Your task to perform on an android device: Open calendar and show me the third week of next month Image 0: 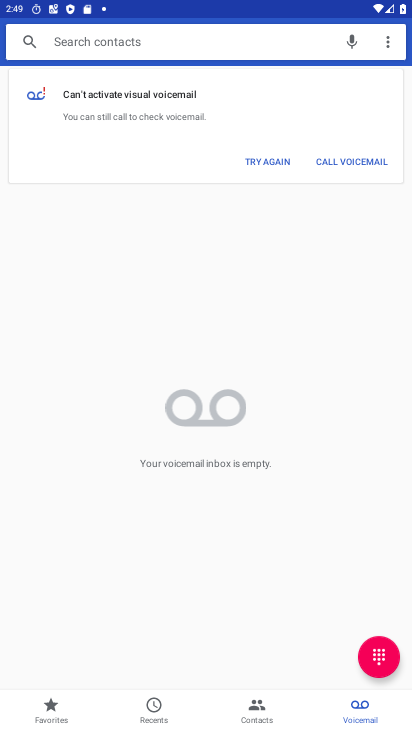
Step 0: press home button
Your task to perform on an android device: Open calendar and show me the third week of next month Image 1: 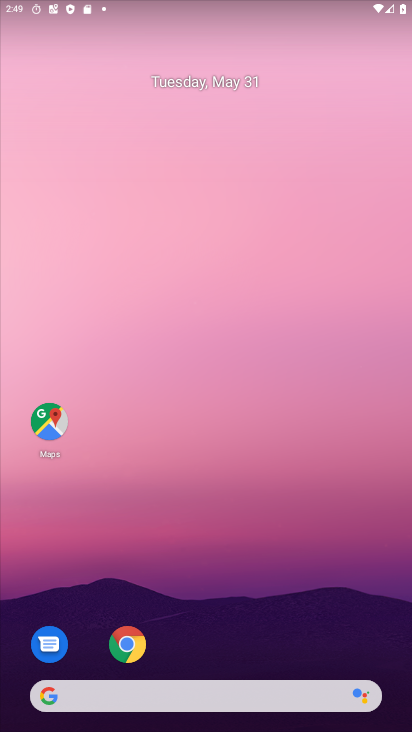
Step 1: drag from (394, 693) to (382, 117)
Your task to perform on an android device: Open calendar and show me the third week of next month Image 2: 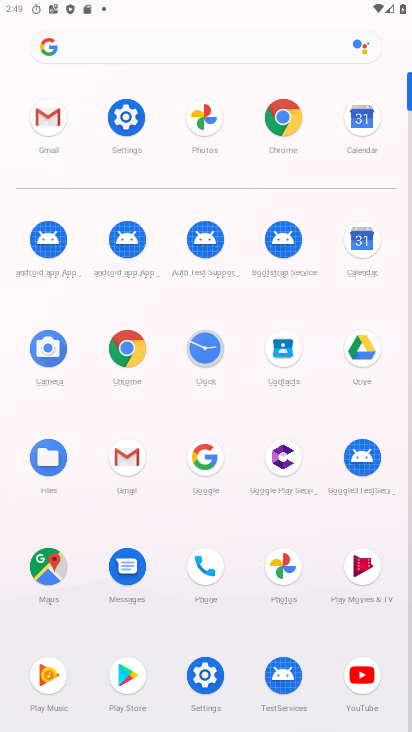
Step 2: click (371, 236)
Your task to perform on an android device: Open calendar and show me the third week of next month Image 3: 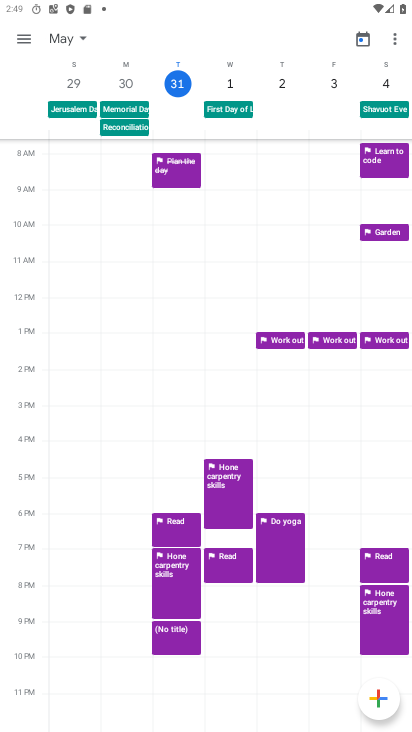
Step 3: click (83, 37)
Your task to perform on an android device: Open calendar and show me the third week of next month Image 4: 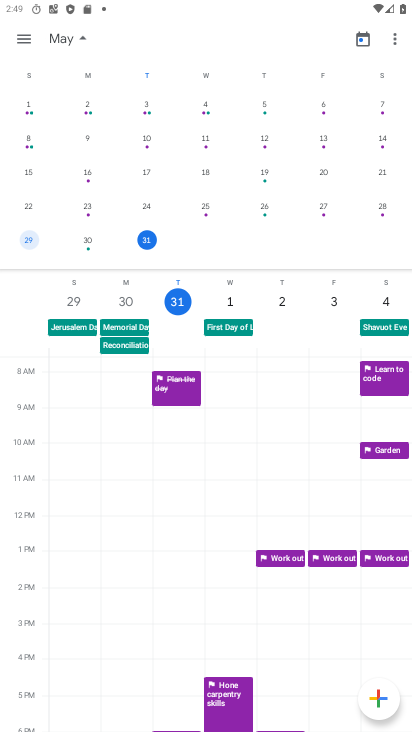
Step 4: drag from (395, 196) to (41, 166)
Your task to perform on an android device: Open calendar and show me the third week of next month Image 5: 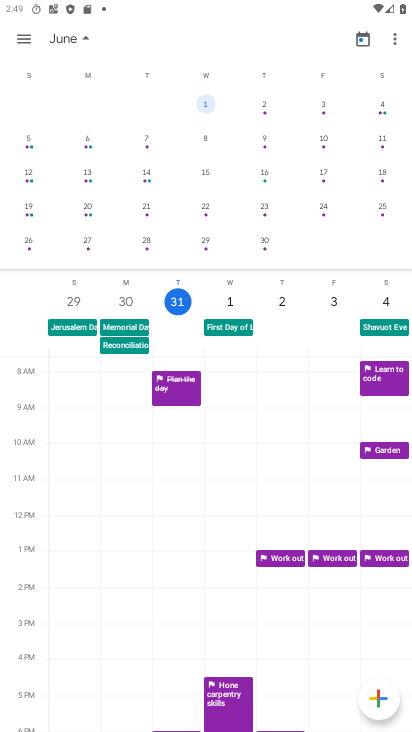
Step 5: click (266, 168)
Your task to perform on an android device: Open calendar and show me the third week of next month Image 6: 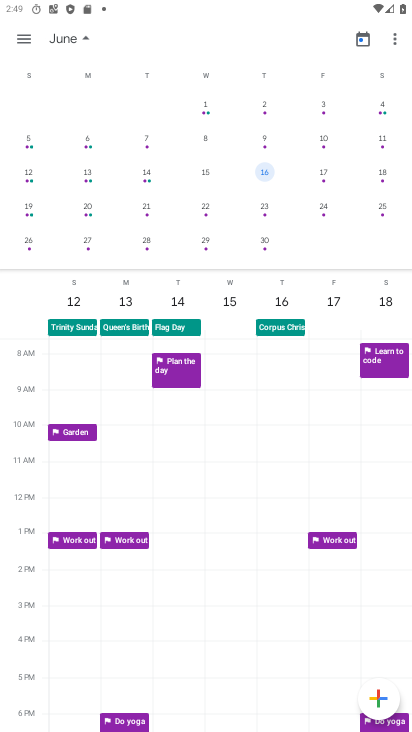
Step 6: click (28, 31)
Your task to perform on an android device: Open calendar and show me the third week of next month Image 7: 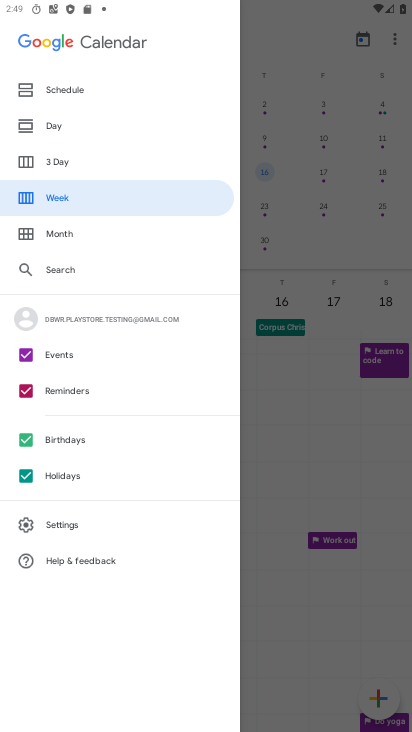
Step 7: click (56, 200)
Your task to perform on an android device: Open calendar and show me the third week of next month Image 8: 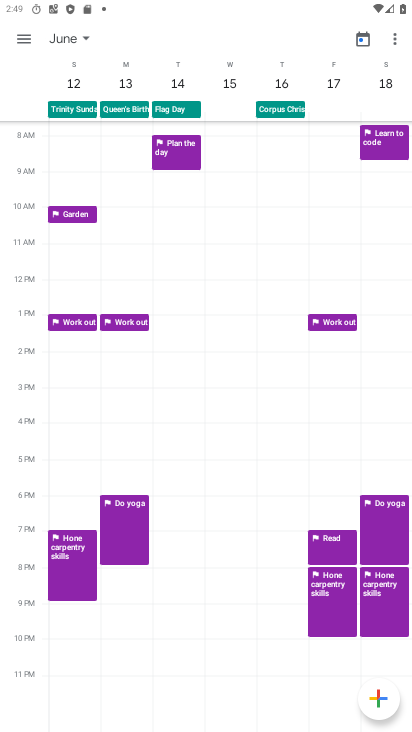
Step 8: task complete